Your task to perform on an android device: Go to ESPN.com Image 0: 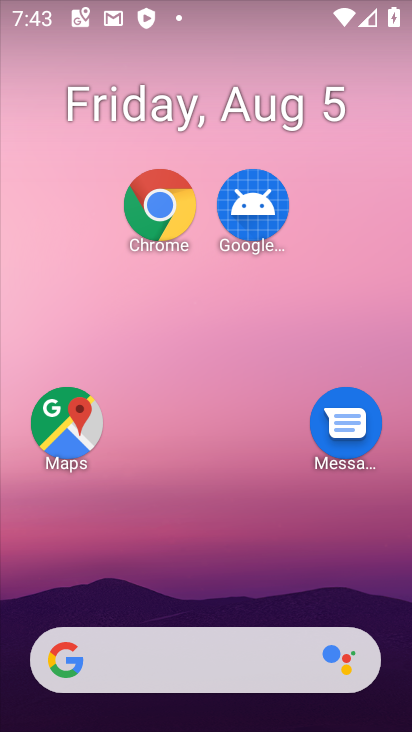
Step 0: click (165, 199)
Your task to perform on an android device: Go to ESPN.com Image 1: 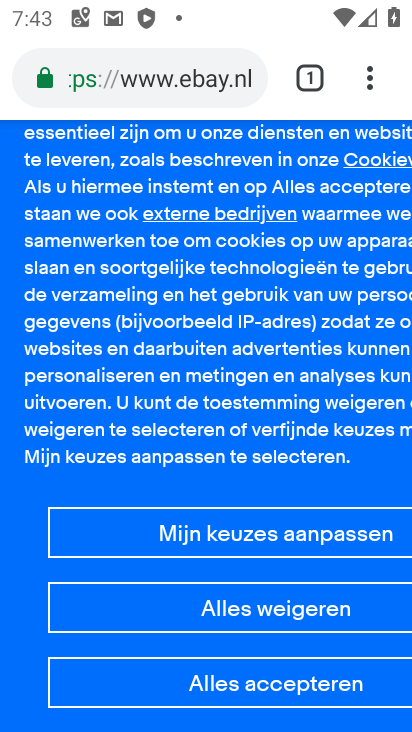
Step 1: click (311, 83)
Your task to perform on an android device: Go to ESPN.com Image 2: 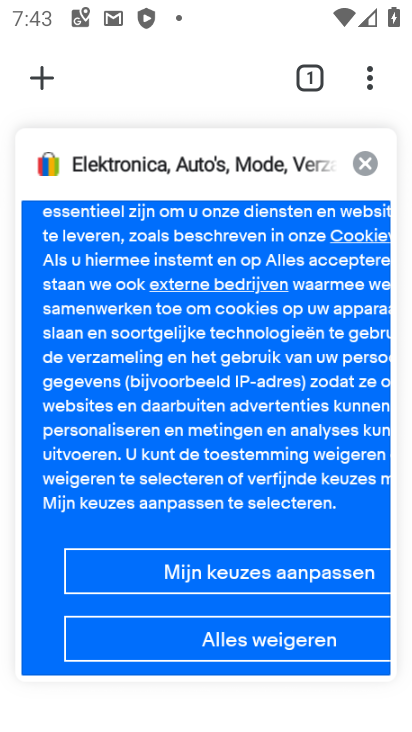
Step 2: click (23, 91)
Your task to perform on an android device: Go to ESPN.com Image 3: 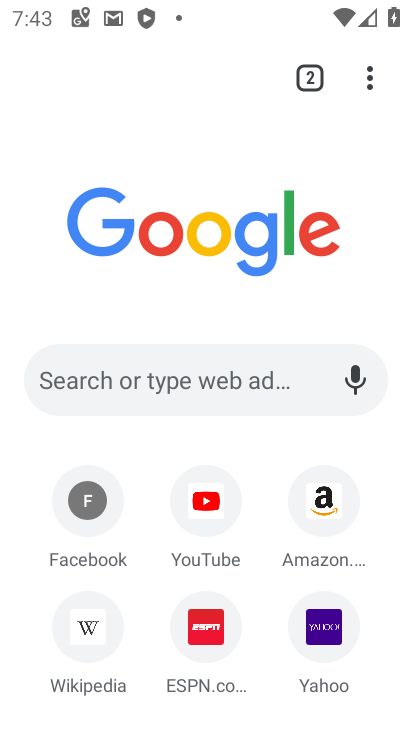
Step 3: click (231, 614)
Your task to perform on an android device: Go to ESPN.com Image 4: 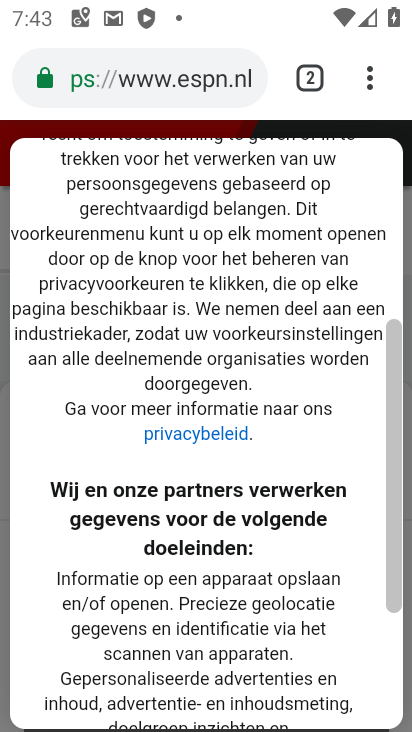
Step 4: task complete